Your task to perform on an android device: Open Wikipedia Image 0: 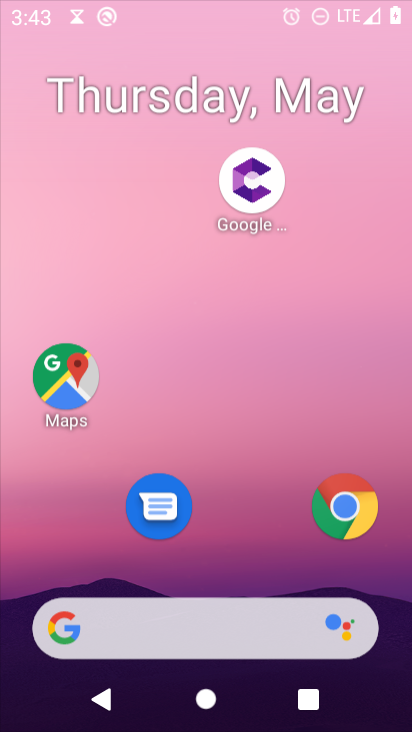
Step 0: press home button
Your task to perform on an android device: Open Wikipedia Image 1: 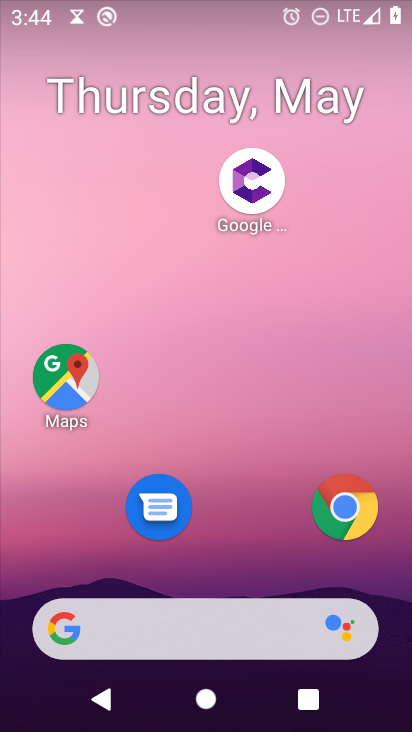
Step 1: click (44, 635)
Your task to perform on an android device: Open Wikipedia Image 2: 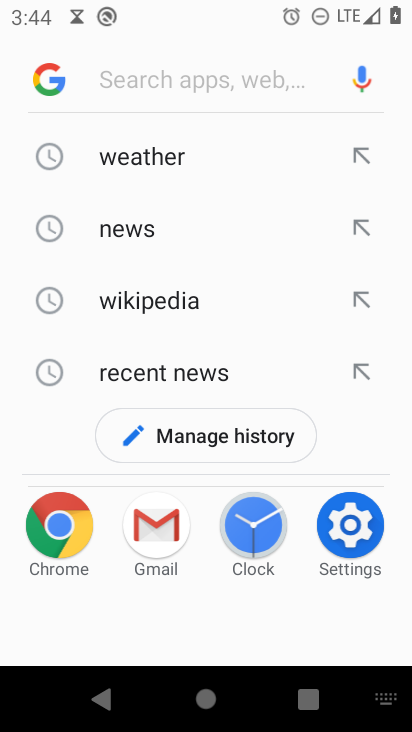
Step 2: click (156, 313)
Your task to perform on an android device: Open Wikipedia Image 3: 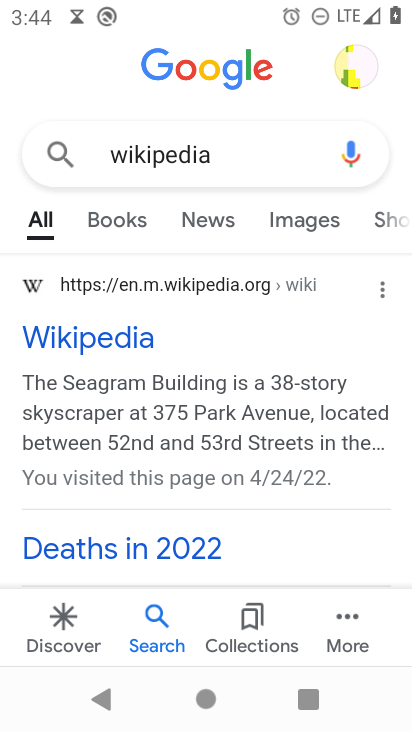
Step 3: click (90, 346)
Your task to perform on an android device: Open Wikipedia Image 4: 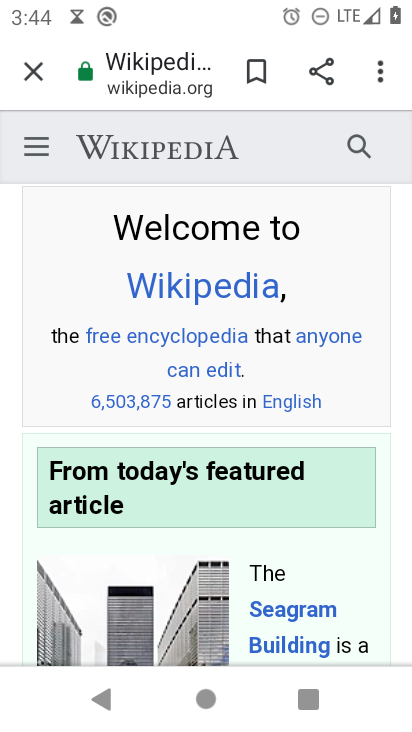
Step 4: task complete